Your task to perform on an android device: Go to Reddit.com Image 0: 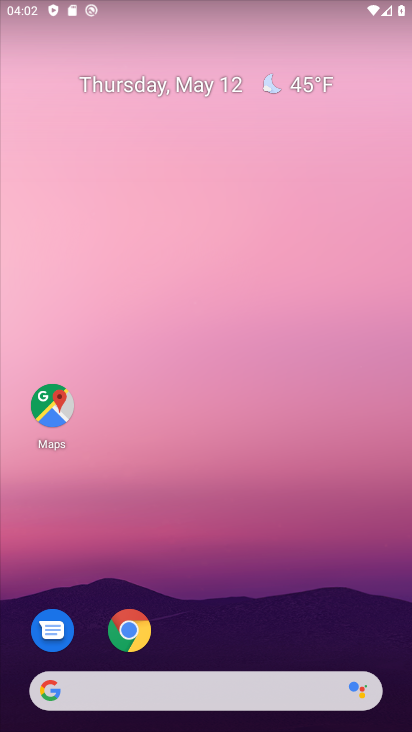
Step 0: click (144, 630)
Your task to perform on an android device: Go to Reddit.com Image 1: 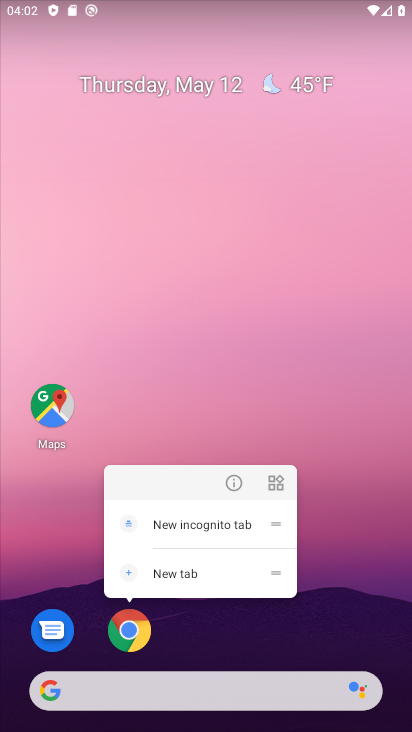
Step 1: click (121, 628)
Your task to perform on an android device: Go to Reddit.com Image 2: 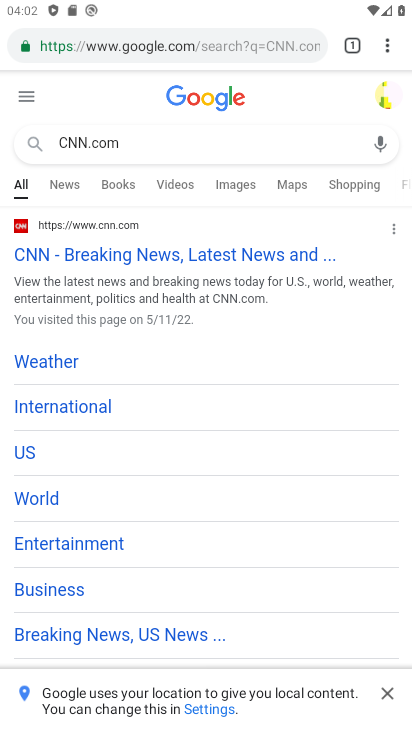
Step 2: click (124, 48)
Your task to perform on an android device: Go to Reddit.com Image 3: 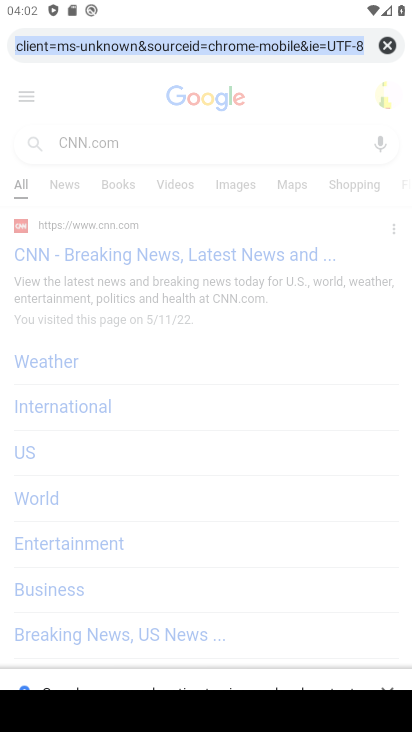
Step 3: type "Reddit.com"
Your task to perform on an android device: Go to Reddit.com Image 4: 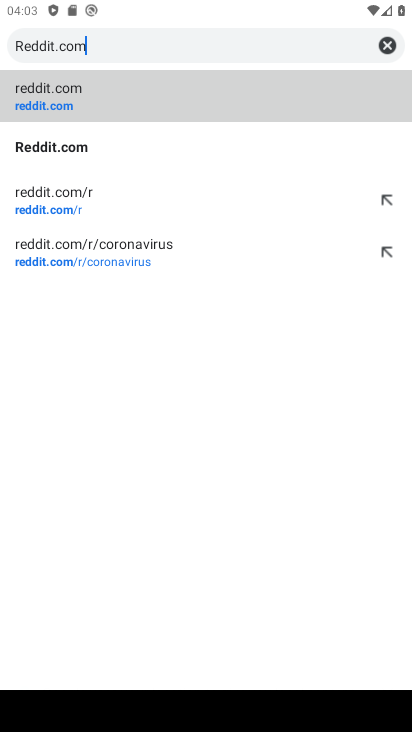
Step 4: click (169, 99)
Your task to perform on an android device: Go to Reddit.com Image 5: 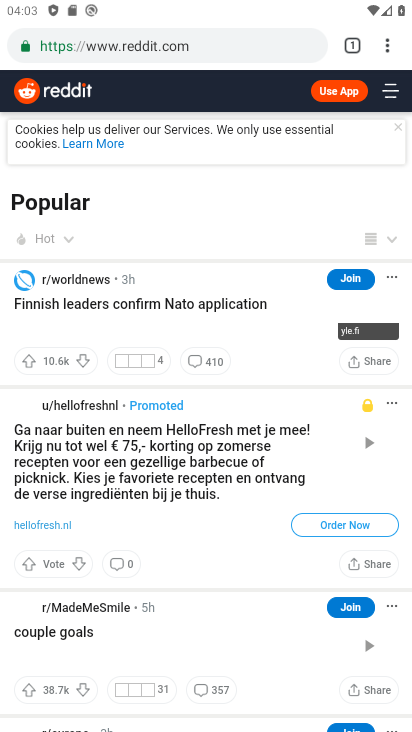
Step 5: task complete